Your task to perform on an android device: Go to ESPN.com Image 0: 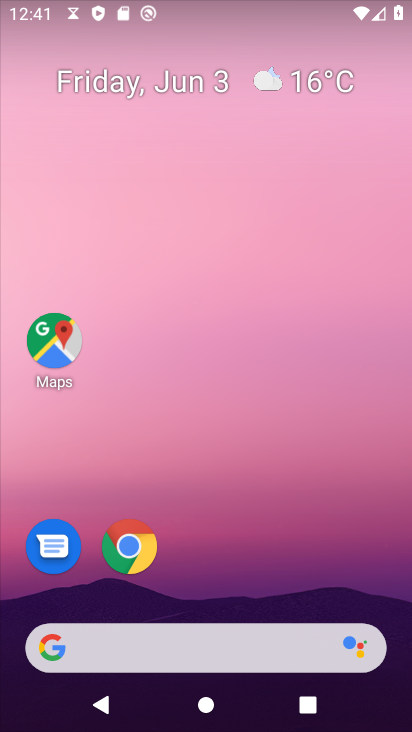
Step 0: click (139, 550)
Your task to perform on an android device: Go to ESPN.com Image 1: 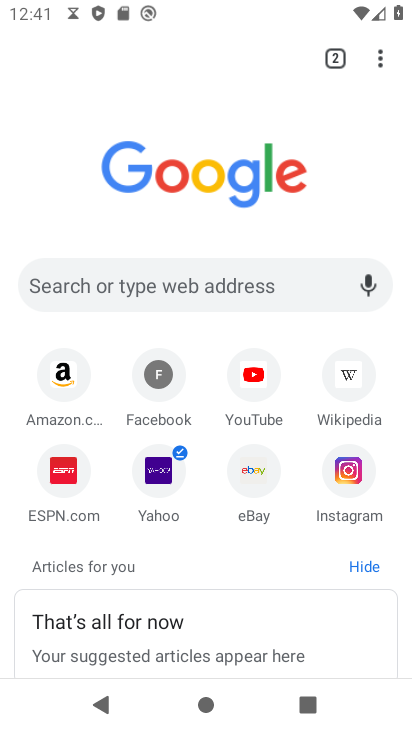
Step 1: click (63, 478)
Your task to perform on an android device: Go to ESPN.com Image 2: 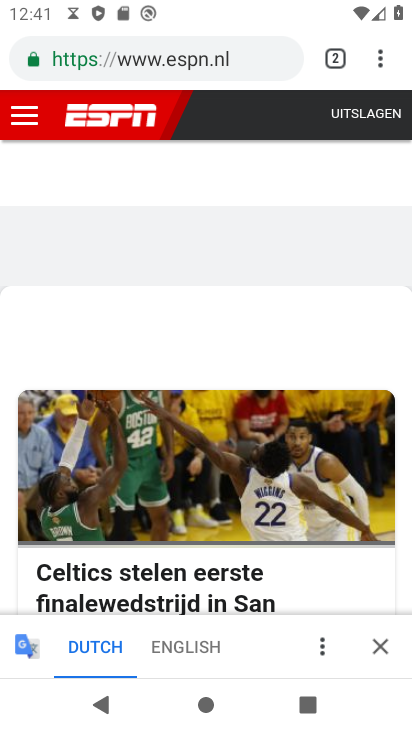
Step 2: task complete